Your task to perform on an android device: add a contact in the contacts app Image 0: 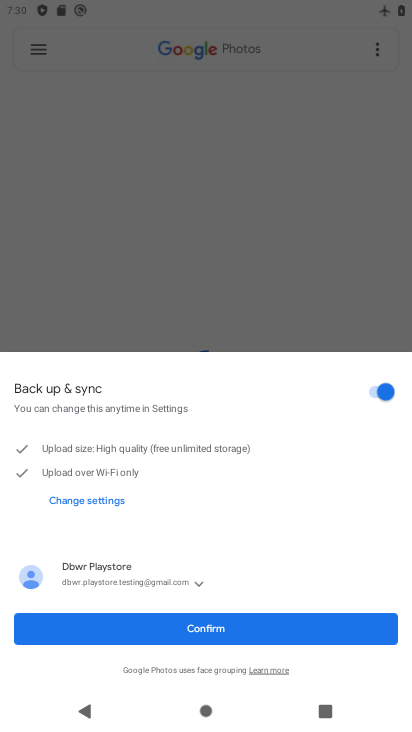
Step 0: press home button
Your task to perform on an android device: add a contact in the contacts app Image 1: 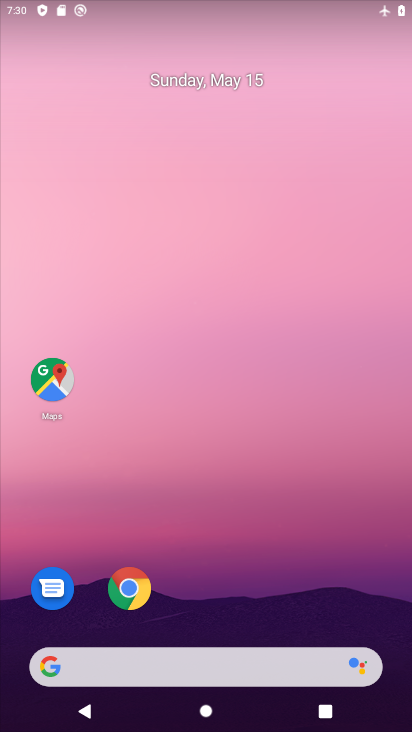
Step 1: drag from (397, 675) to (284, 154)
Your task to perform on an android device: add a contact in the contacts app Image 2: 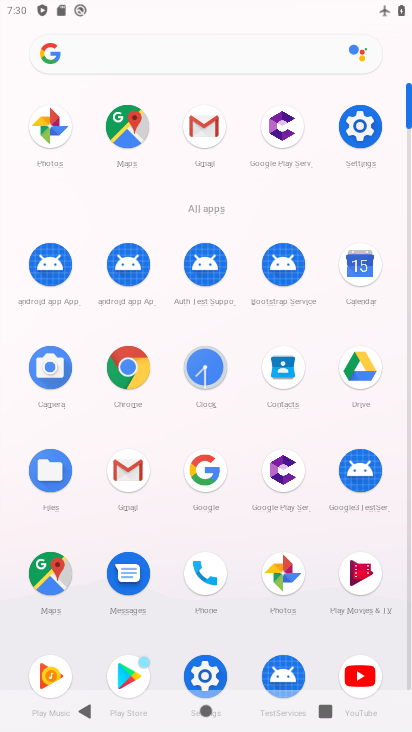
Step 2: click (273, 357)
Your task to perform on an android device: add a contact in the contacts app Image 3: 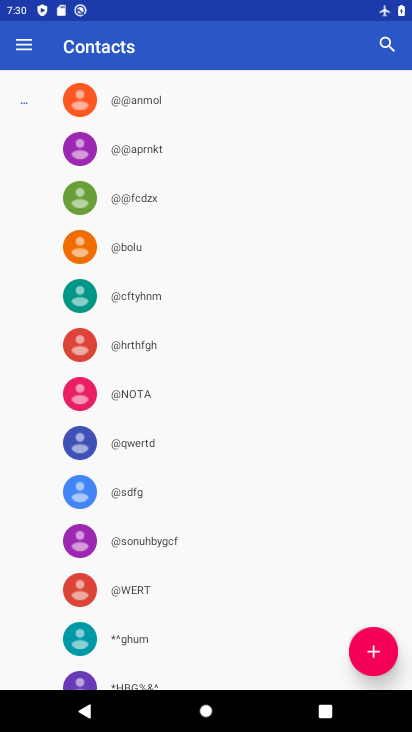
Step 3: click (382, 653)
Your task to perform on an android device: add a contact in the contacts app Image 4: 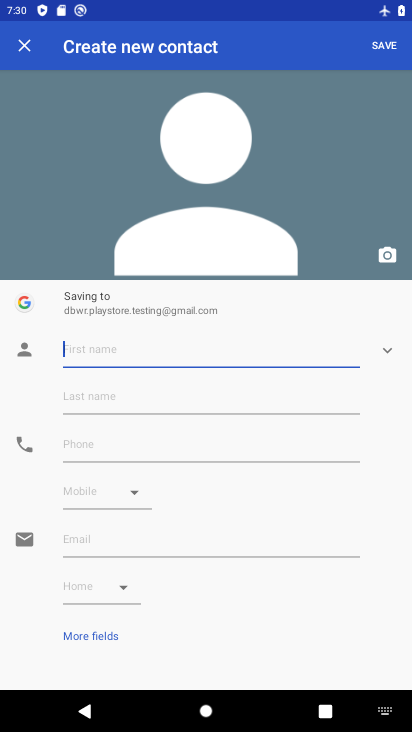
Step 4: type "boat"
Your task to perform on an android device: add a contact in the contacts app Image 5: 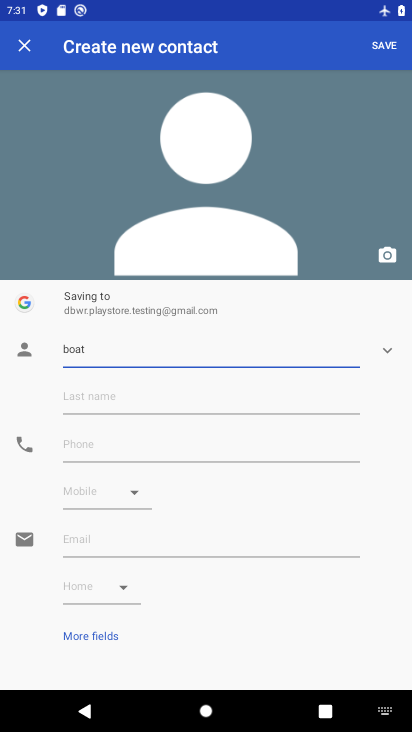
Step 5: click (394, 42)
Your task to perform on an android device: add a contact in the contacts app Image 6: 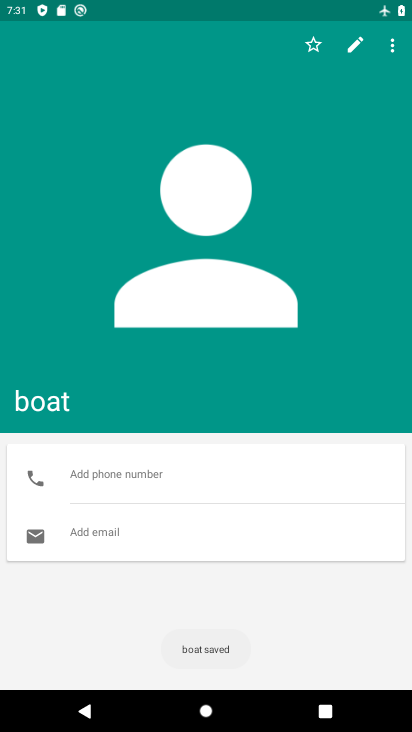
Step 6: task complete